Your task to perform on an android device: delete the emails in spam in the gmail app Image 0: 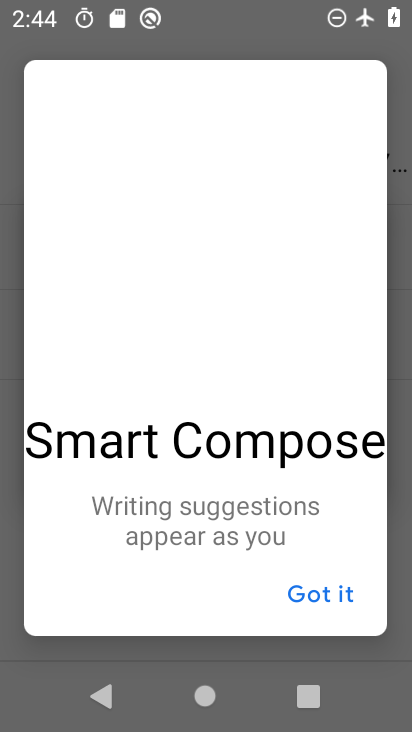
Step 0: press home button
Your task to perform on an android device: delete the emails in spam in the gmail app Image 1: 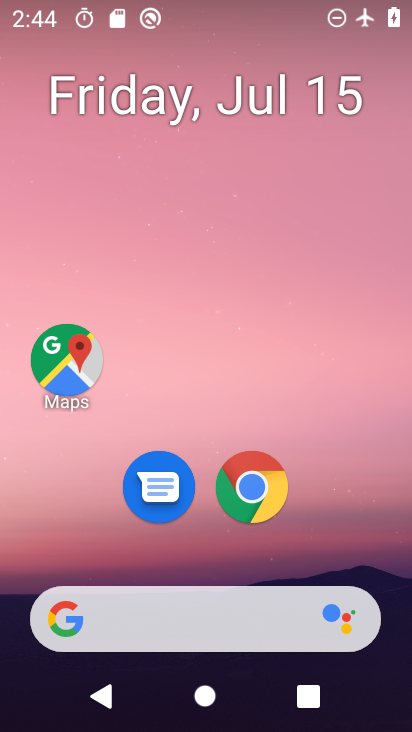
Step 1: drag from (236, 699) to (294, 47)
Your task to perform on an android device: delete the emails in spam in the gmail app Image 2: 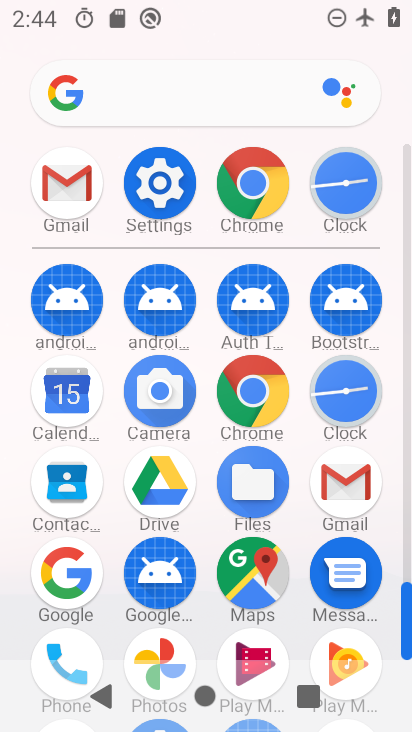
Step 2: click (365, 497)
Your task to perform on an android device: delete the emails in spam in the gmail app Image 3: 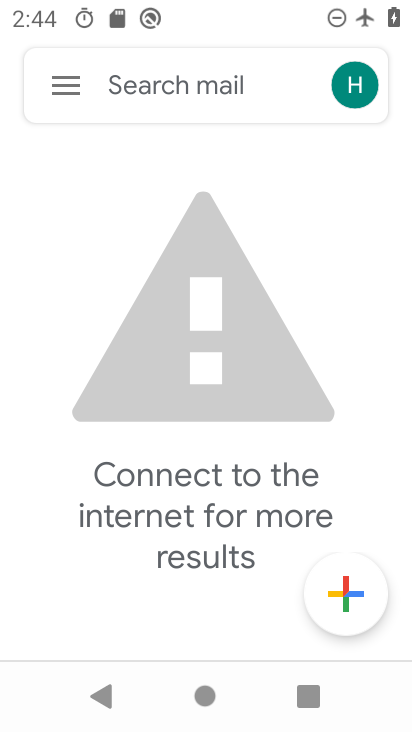
Step 3: click (65, 84)
Your task to perform on an android device: delete the emails in spam in the gmail app Image 4: 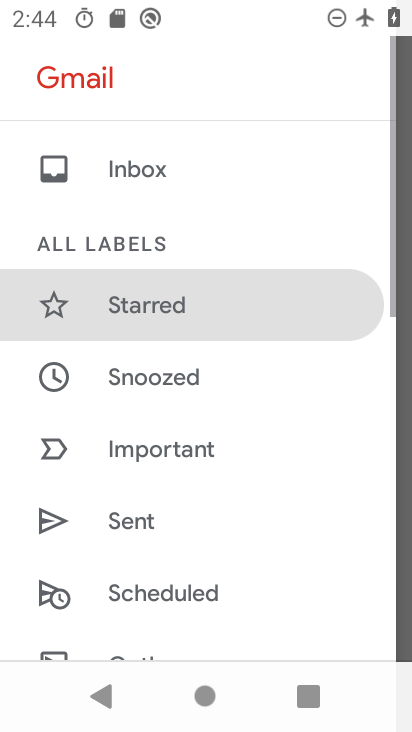
Step 4: drag from (134, 522) to (230, 188)
Your task to perform on an android device: delete the emails in spam in the gmail app Image 5: 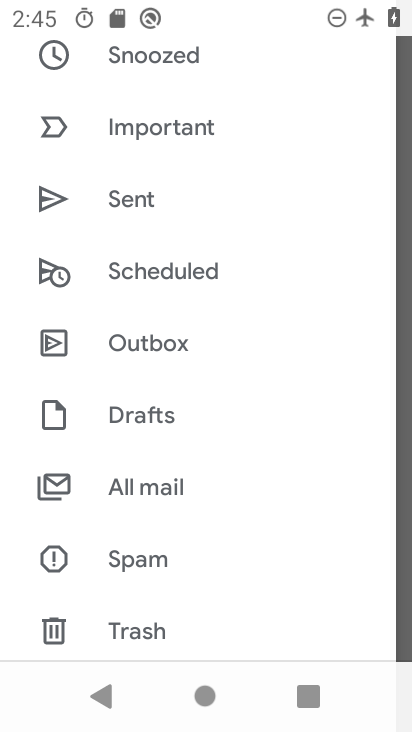
Step 5: click (159, 568)
Your task to perform on an android device: delete the emails in spam in the gmail app Image 6: 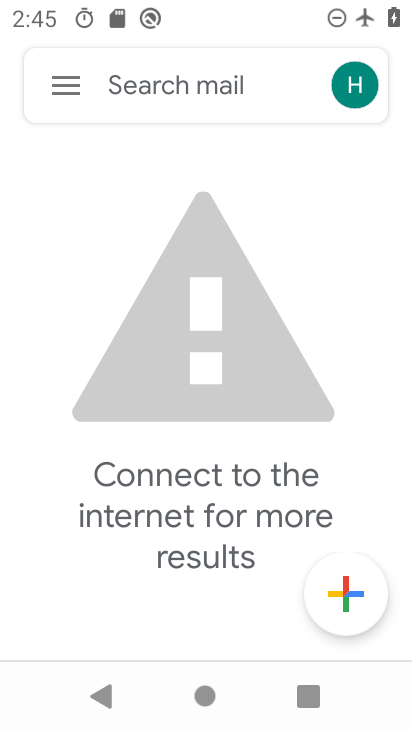
Step 6: task complete